Your task to perform on an android device: make emails show in primary in the gmail app Image 0: 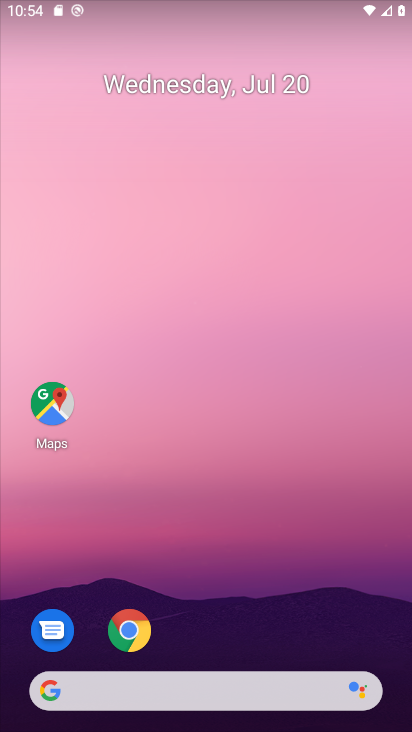
Step 0: drag from (182, 692) to (188, 222)
Your task to perform on an android device: make emails show in primary in the gmail app Image 1: 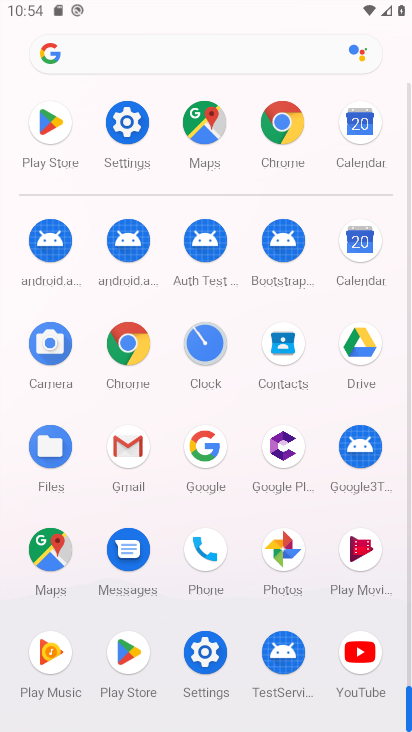
Step 1: click (123, 452)
Your task to perform on an android device: make emails show in primary in the gmail app Image 2: 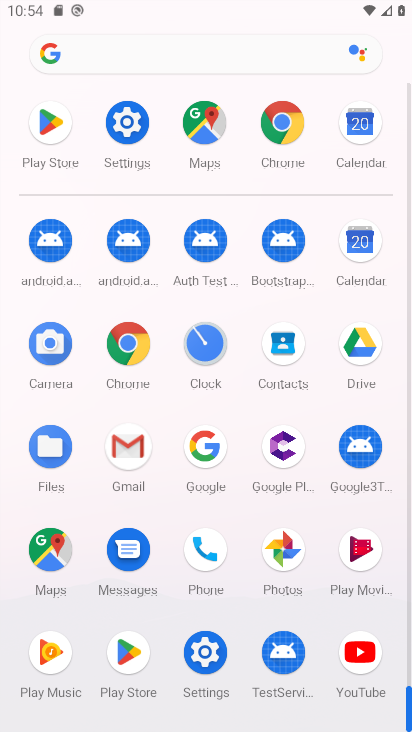
Step 2: click (122, 451)
Your task to perform on an android device: make emails show in primary in the gmail app Image 3: 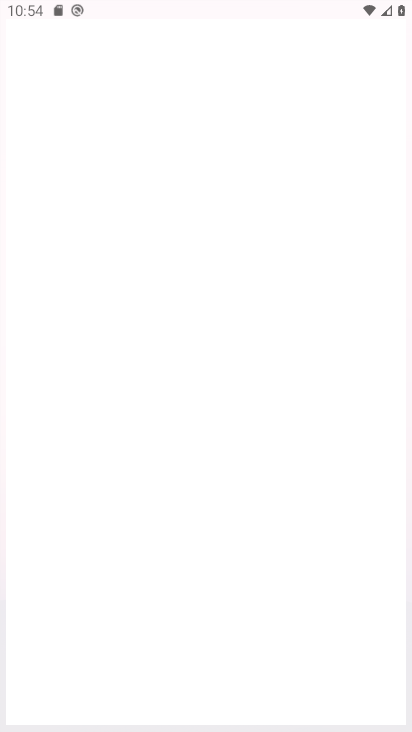
Step 3: click (128, 444)
Your task to perform on an android device: make emails show in primary in the gmail app Image 4: 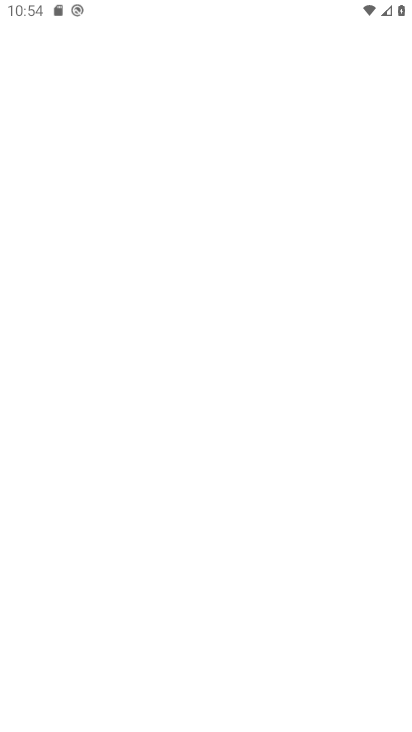
Step 4: click (130, 443)
Your task to perform on an android device: make emails show in primary in the gmail app Image 5: 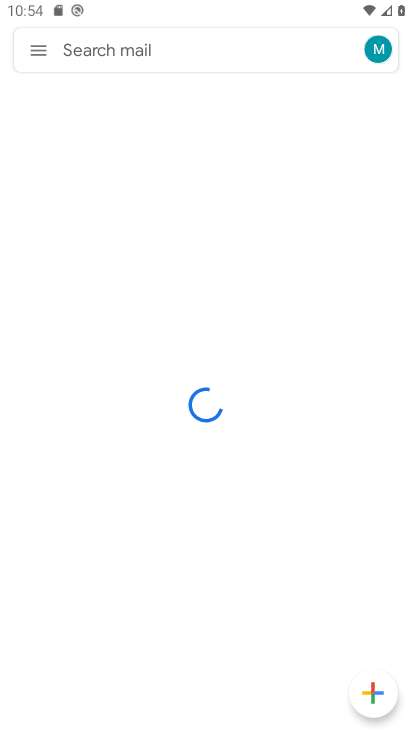
Step 5: click (37, 45)
Your task to perform on an android device: make emails show in primary in the gmail app Image 6: 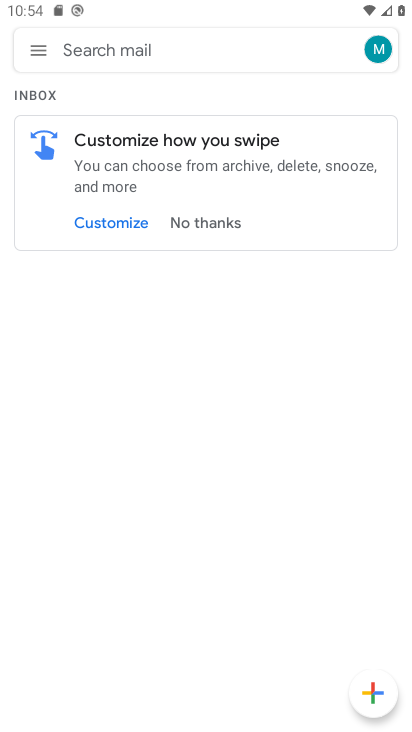
Step 6: click (43, 47)
Your task to perform on an android device: make emails show in primary in the gmail app Image 7: 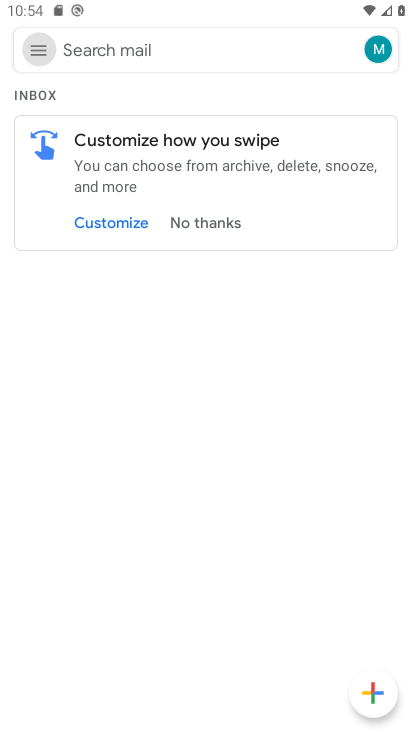
Step 7: click (43, 47)
Your task to perform on an android device: make emails show in primary in the gmail app Image 8: 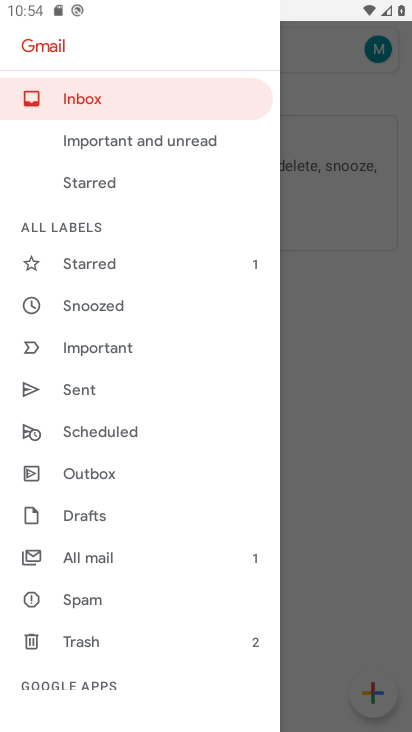
Step 8: drag from (88, 601) to (114, 241)
Your task to perform on an android device: make emails show in primary in the gmail app Image 9: 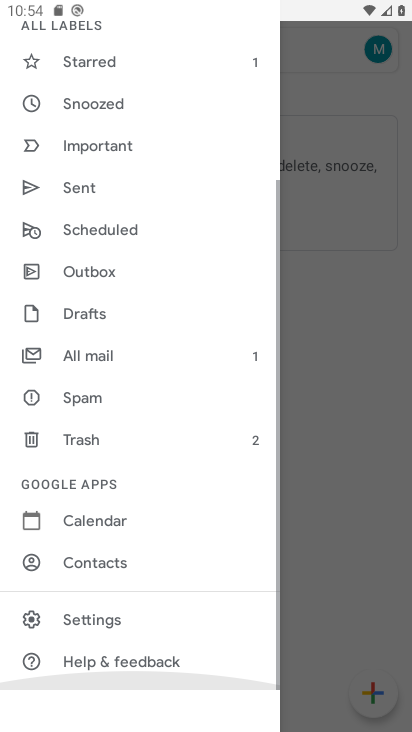
Step 9: drag from (148, 575) to (116, 259)
Your task to perform on an android device: make emails show in primary in the gmail app Image 10: 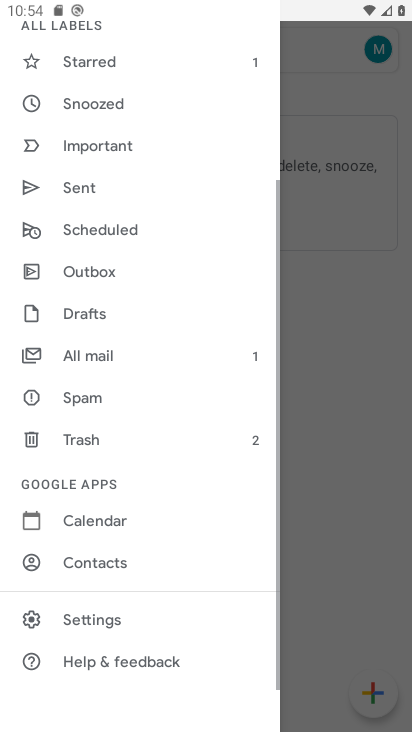
Step 10: click (95, 605)
Your task to perform on an android device: make emails show in primary in the gmail app Image 11: 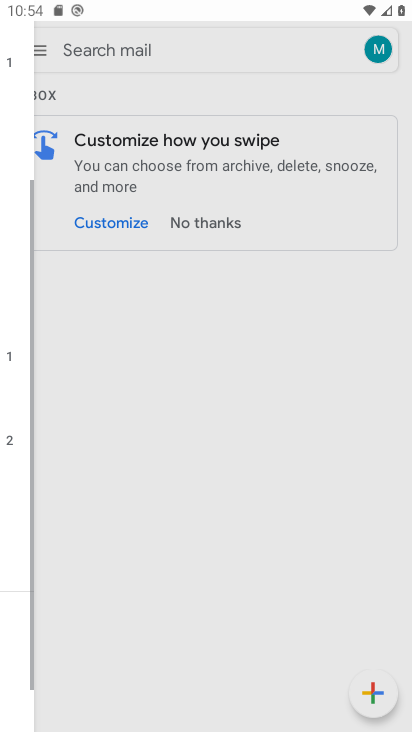
Step 11: click (98, 617)
Your task to perform on an android device: make emails show in primary in the gmail app Image 12: 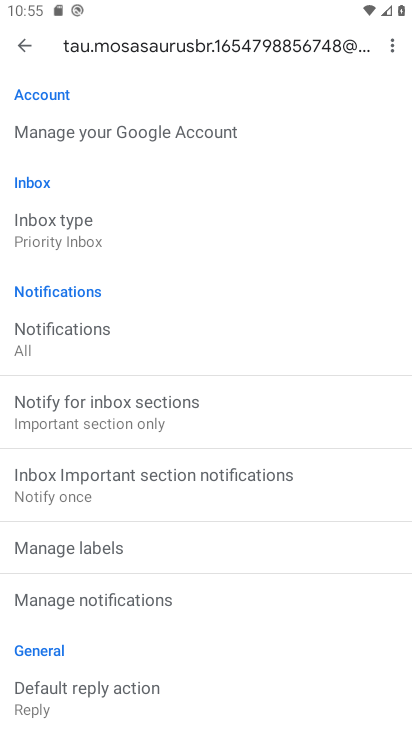
Step 12: click (66, 221)
Your task to perform on an android device: make emails show in primary in the gmail app Image 13: 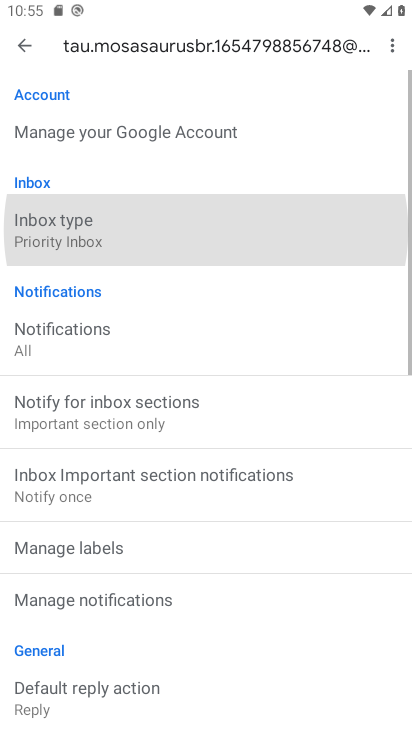
Step 13: click (66, 221)
Your task to perform on an android device: make emails show in primary in the gmail app Image 14: 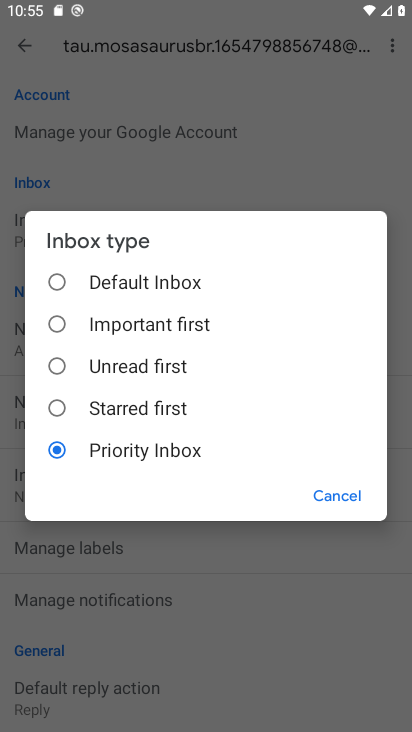
Step 14: click (52, 277)
Your task to perform on an android device: make emails show in primary in the gmail app Image 15: 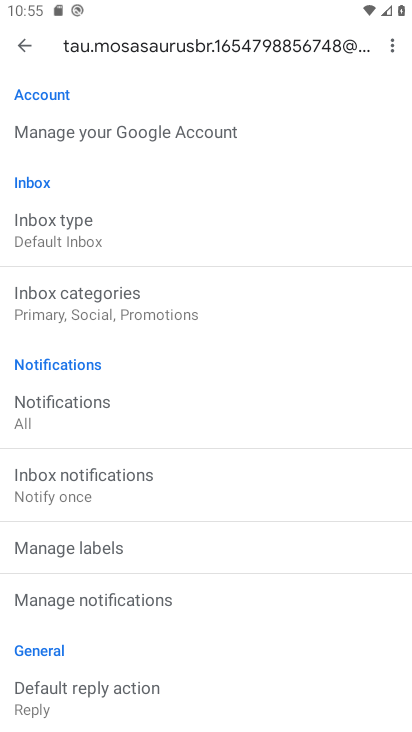
Step 15: task complete